Your task to perform on an android device: Go to CNN.com Image 0: 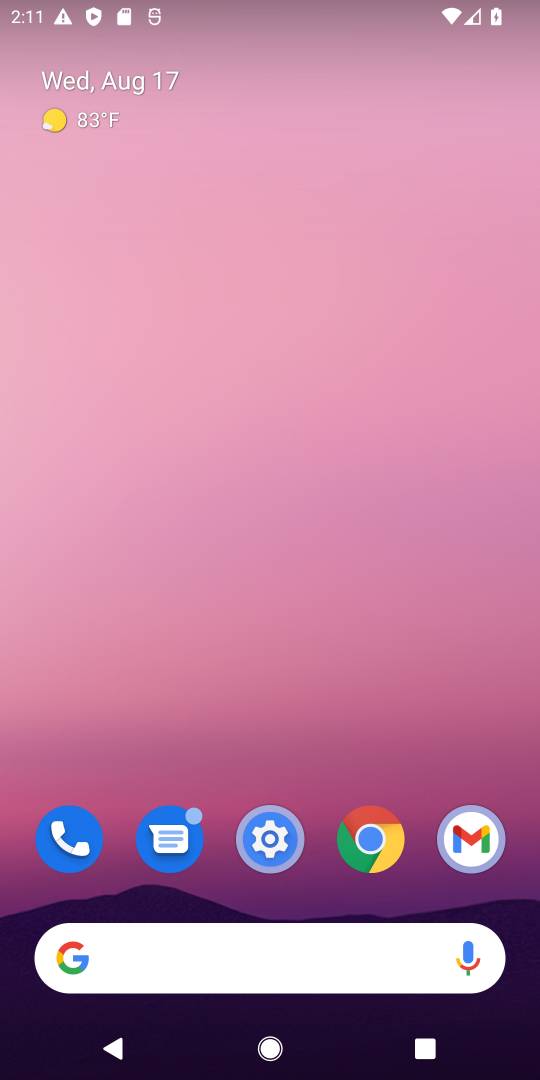
Step 0: click (364, 837)
Your task to perform on an android device: Go to CNN.com Image 1: 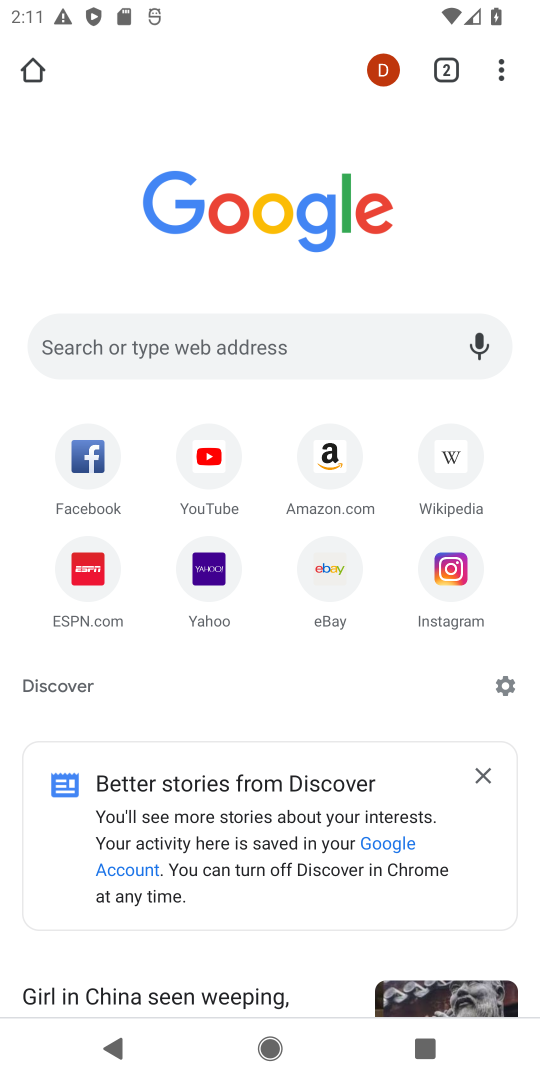
Step 1: click (275, 345)
Your task to perform on an android device: Go to CNN.com Image 2: 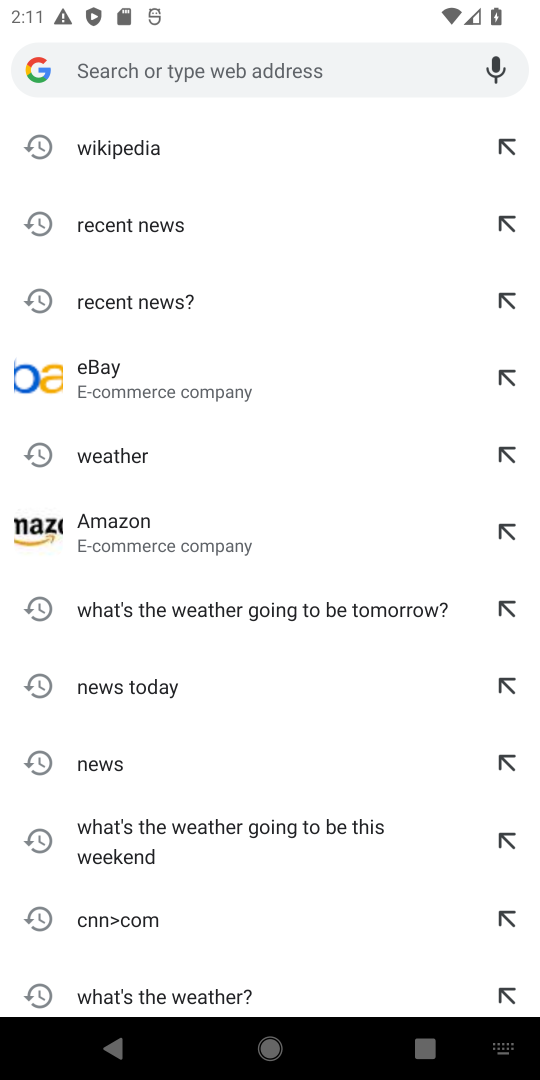
Step 2: type "CNN.com"
Your task to perform on an android device: Go to CNN.com Image 3: 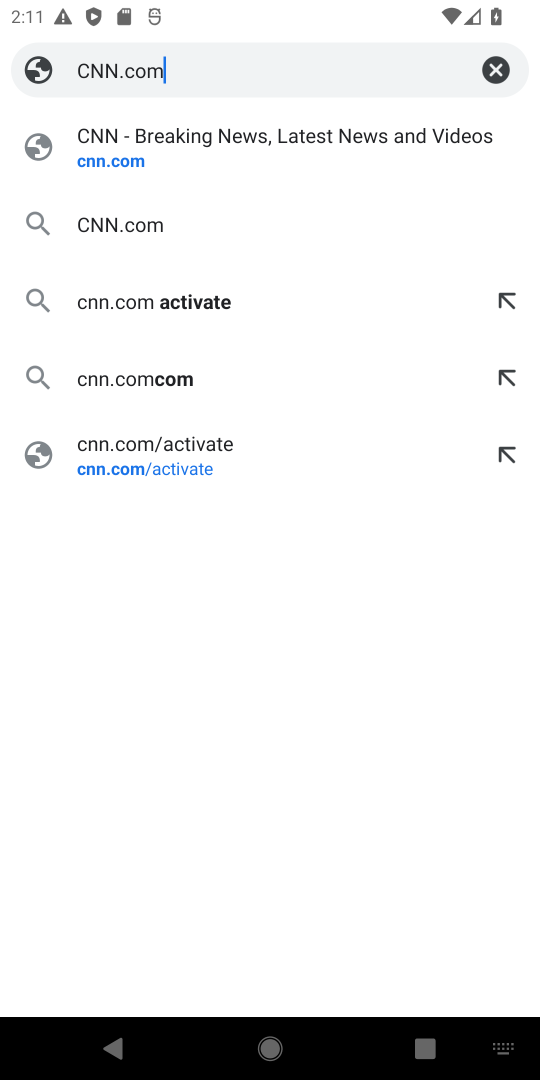
Step 3: click (216, 132)
Your task to perform on an android device: Go to CNN.com Image 4: 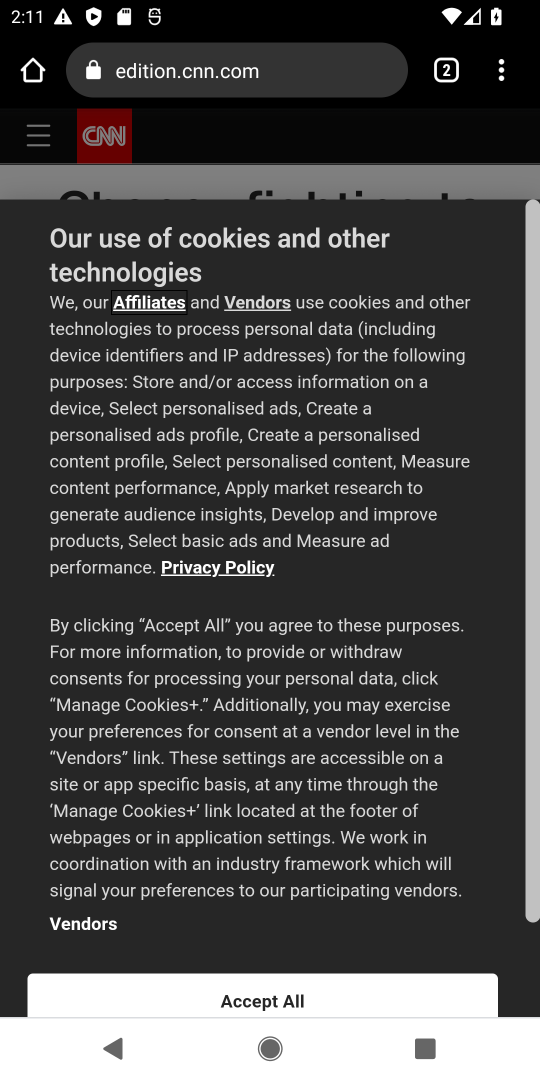
Step 4: task complete